Your task to perform on an android device: open the mobile data screen to see how much data has been used Image 0: 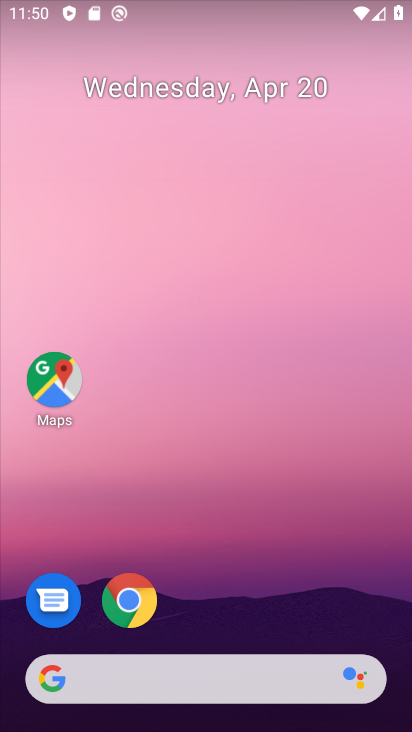
Step 0: drag from (199, 636) to (188, 80)
Your task to perform on an android device: open the mobile data screen to see how much data has been used Image 1: 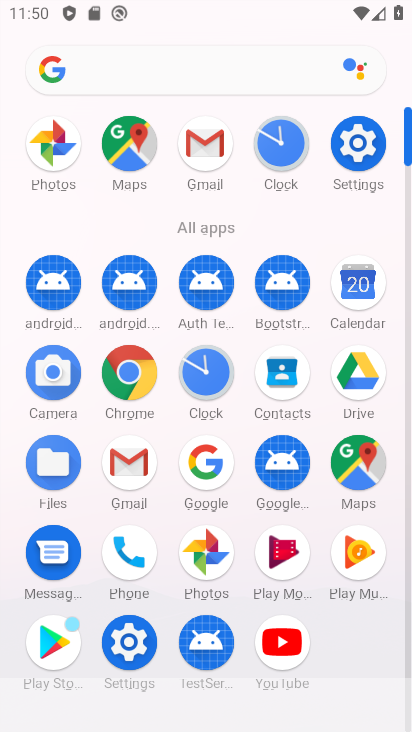
Step 1: click (125, 638)
Your task to perform on an android device: open the mobile data screen to see how much data has been used Image 2: 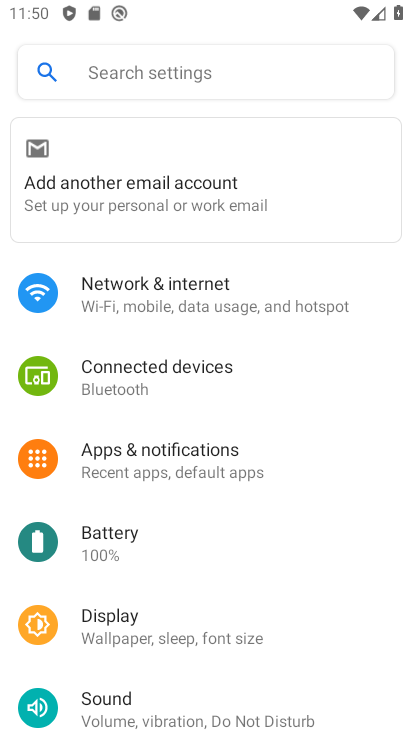
Step 2: click (129, 317)
Your task to perform on an android device: open the mobile data screen to see how much data has been used Image 3: 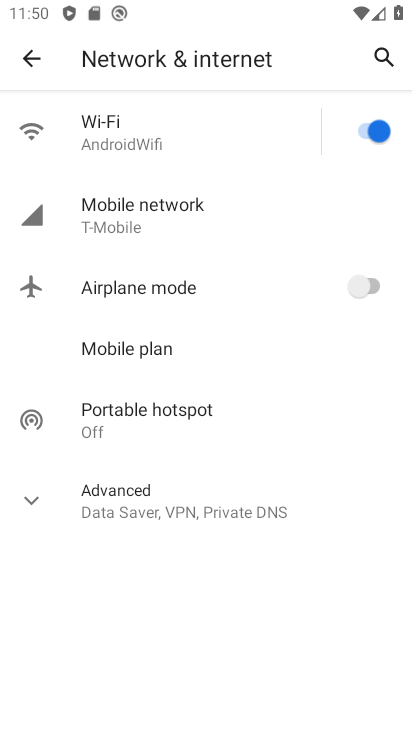
Step 3: click (158, 223)
Your task to perform on an android device: open the mobile data screen to see how much data has been used Image 4: 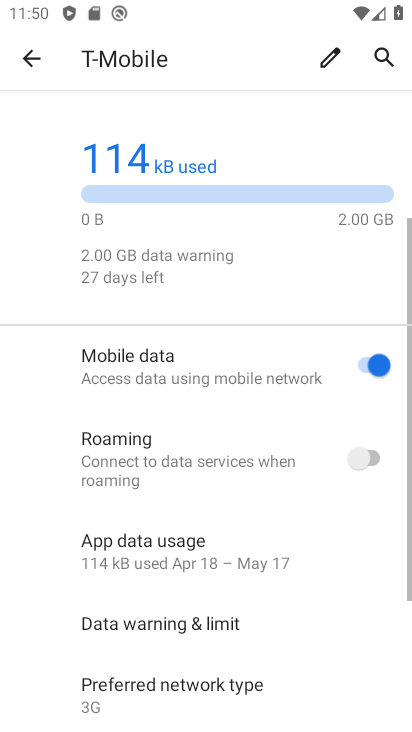
Step 4: drag from (162, 227) to (193, 448)
Your task to perform on an android device: open the mobile data screen to see how much data has been used Image 5: 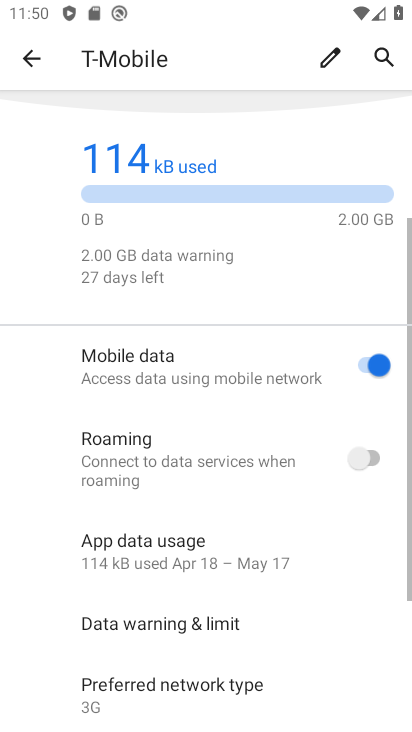
Step 5: click (197, 222)
Your task to perform on an android device: open the mobile data screen to see how much data has been used Image 6: 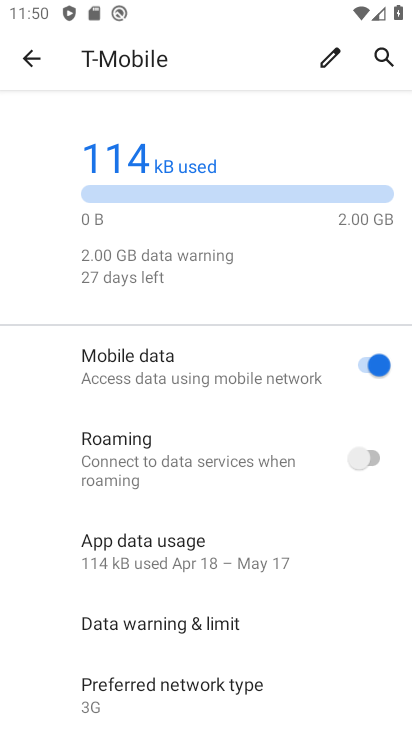
Step 6: task complete